Your task to perform on an android device: Do I have any events today? Image 0: 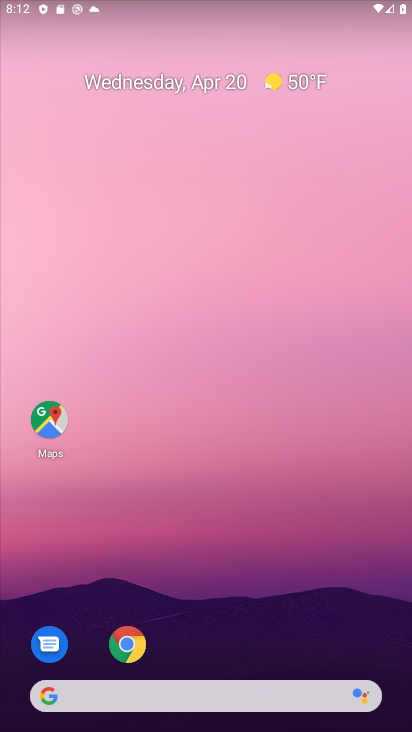
Step 0: drag from (295, 618) to (264, 3)
Your task to perform on an android device: Do I have any events today? Image 1: 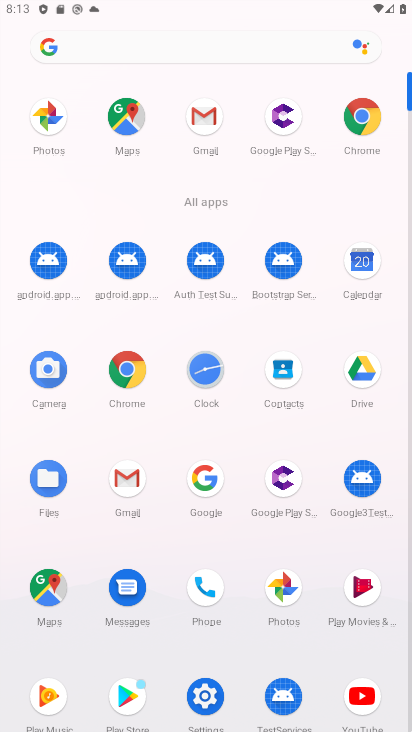
Step 1: click (366, 260)
Your task to perform on an android device: Do I have any events today? Image 2: 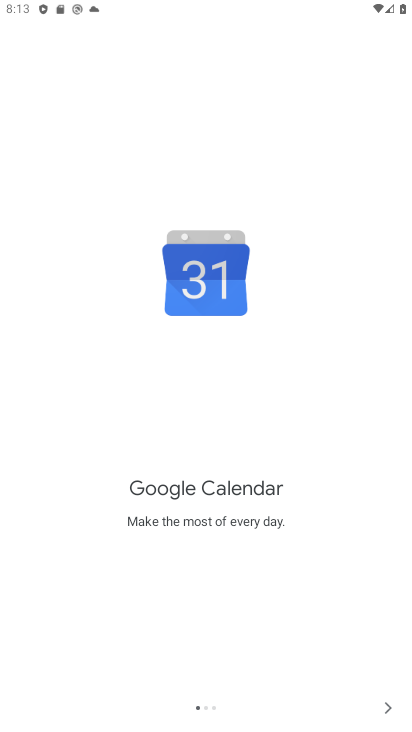
Step 2: click (382, 701)
Your task to perform on an android device: Do I have any events today? Image 3: 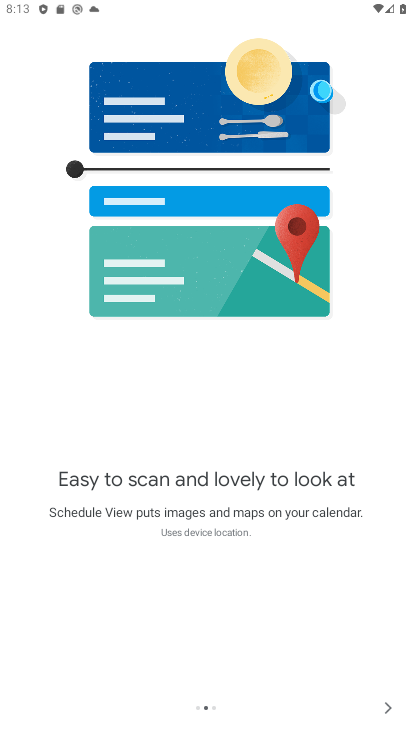
Step 3: click (383, 710)
Your task to perform on an android device: Do I have any events today? Image 4: 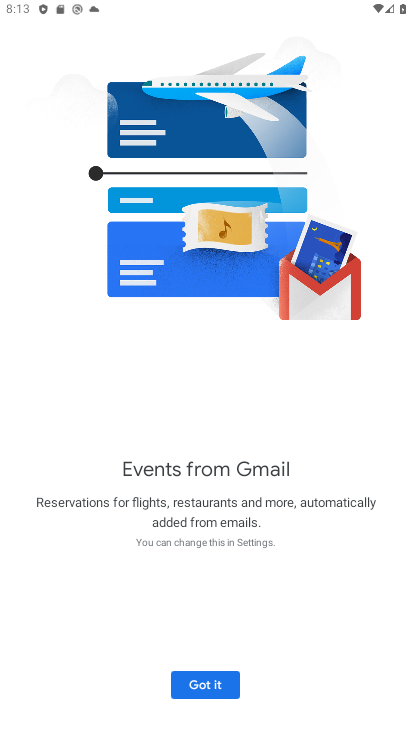
Step 4: click (204, 676)
Your task to perform on an android device: Do I have any events today? Image 5: 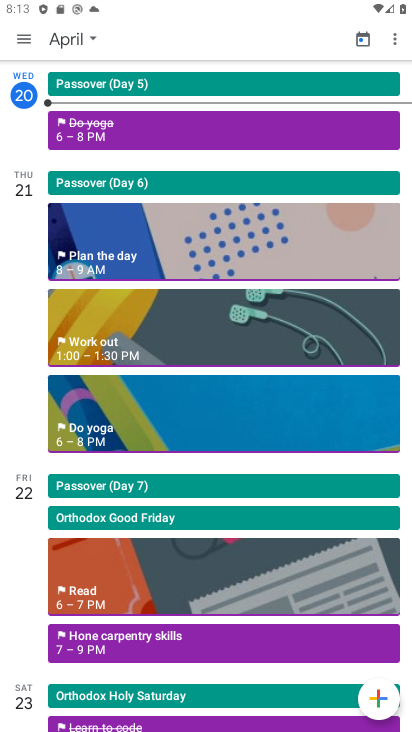
Step 5: click (85, 39)
Your task to perform on an android device: Do I have any events today? Image 6: 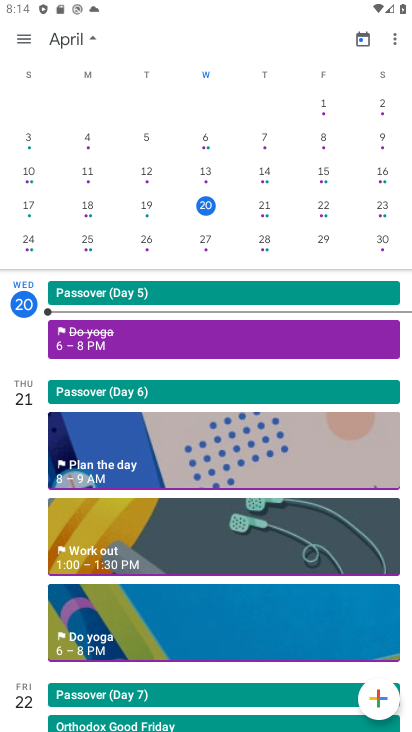
Step 6: click (205, 197)
Your task to perform on an android device: Do I have any events today? Image 7: 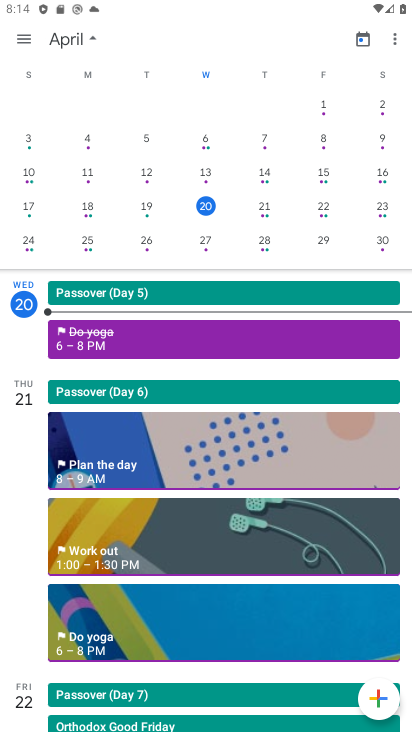
Step 7: task complete